Your task to perform on an android device: Show the shopping cart on target. Search for "macbook" on target, select the first entry, and add it to the cart. Image 0: 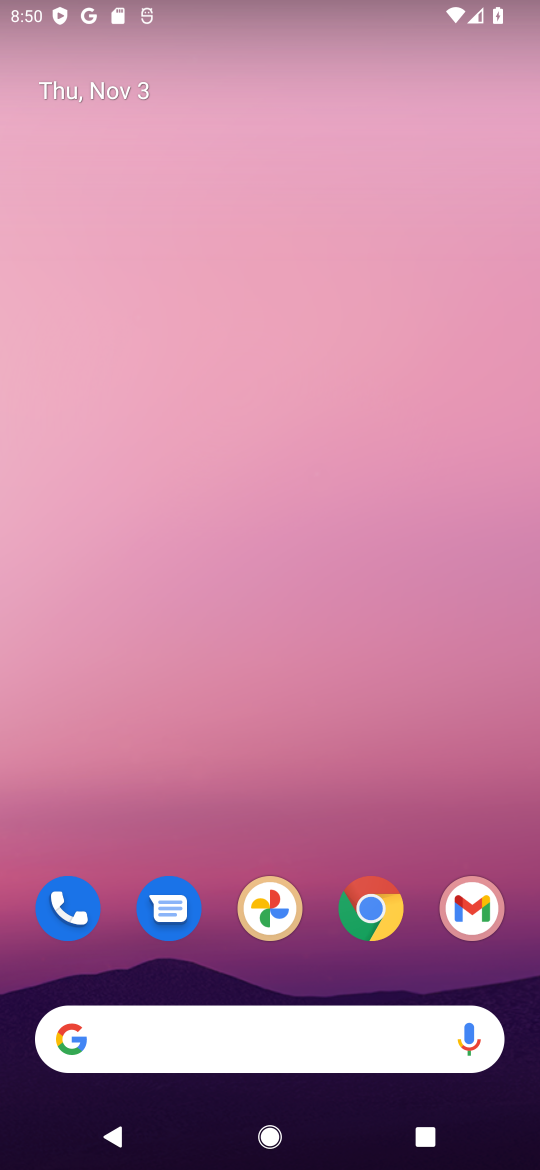
Step 0: click (363, 913)
Your task to perform on an android device: Show the shopping cart on target. Search for "macbook" on target, select the first entry, and add it to the cart. Image 1: 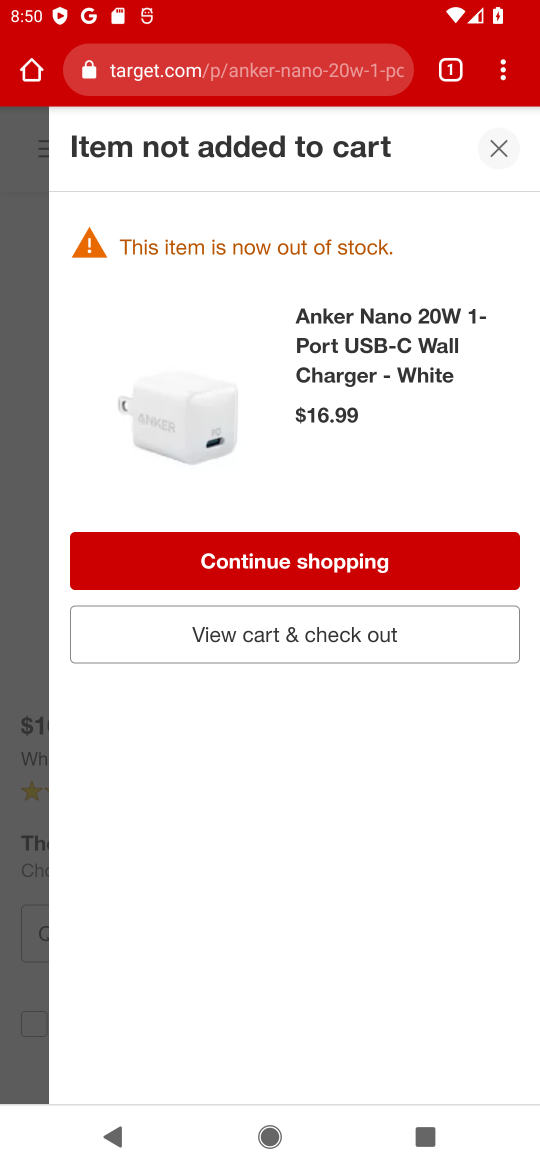
Step 1: click (495, 146)
Your task to perform on an android device: Show the shopping cart on target. Search for "macbook" on target, select the first entry, and add it to the cart. Image 2: 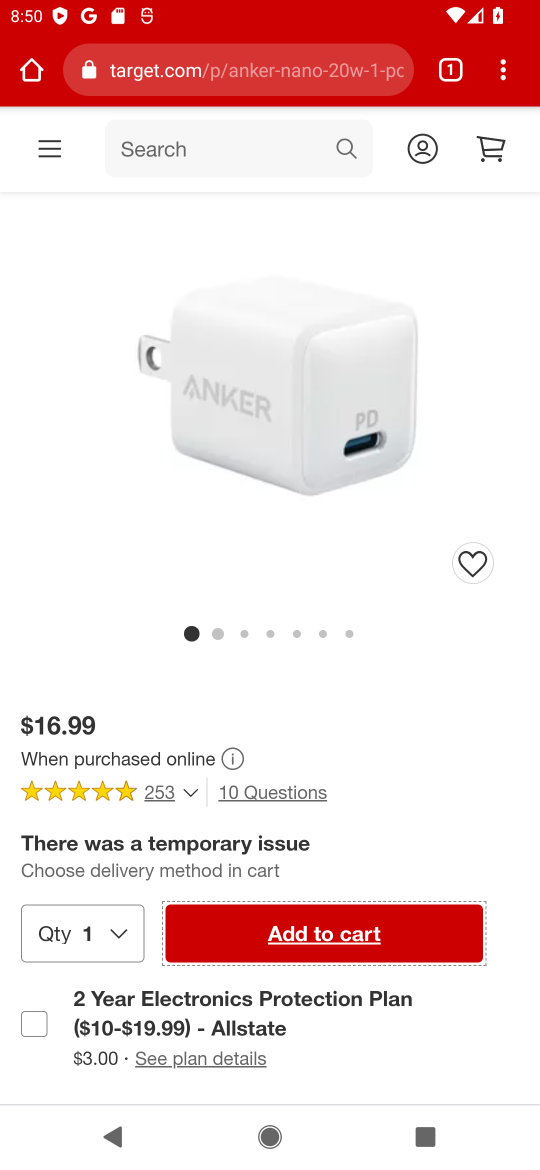
Step 2: click (495, 146)
Your task to perform on an android device: Show the shopping cart on target. Search for "macbook" on target, select the first entry, and add it to the cart. Image 3: 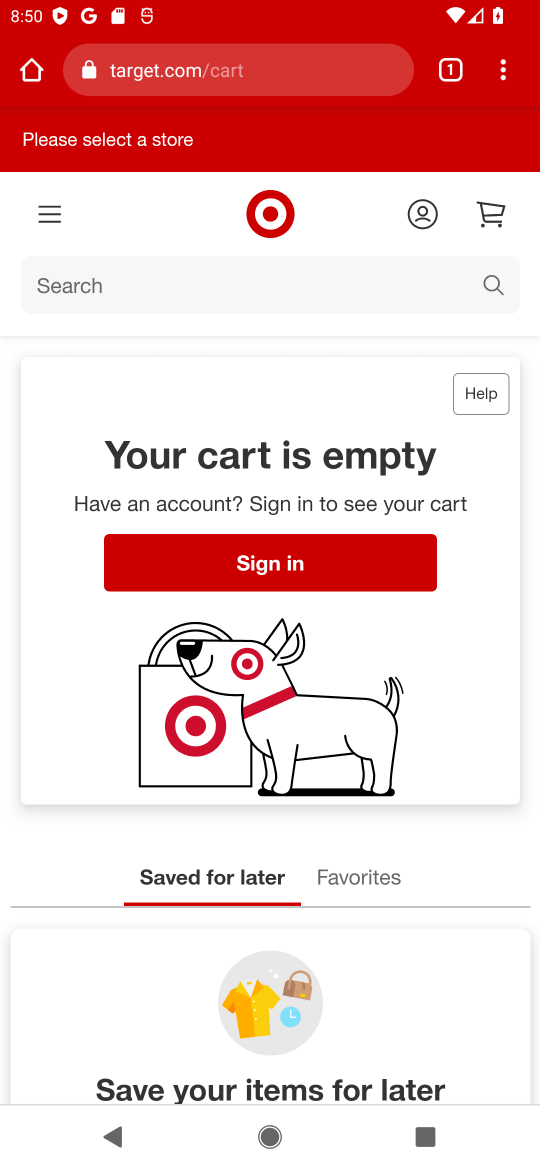
Step 3: click (491, 281)
Your task to perform on an android device: Show the shopping cart on target. Search for "macbook" on target, select the first entry, and add it to the cart. Image 4: 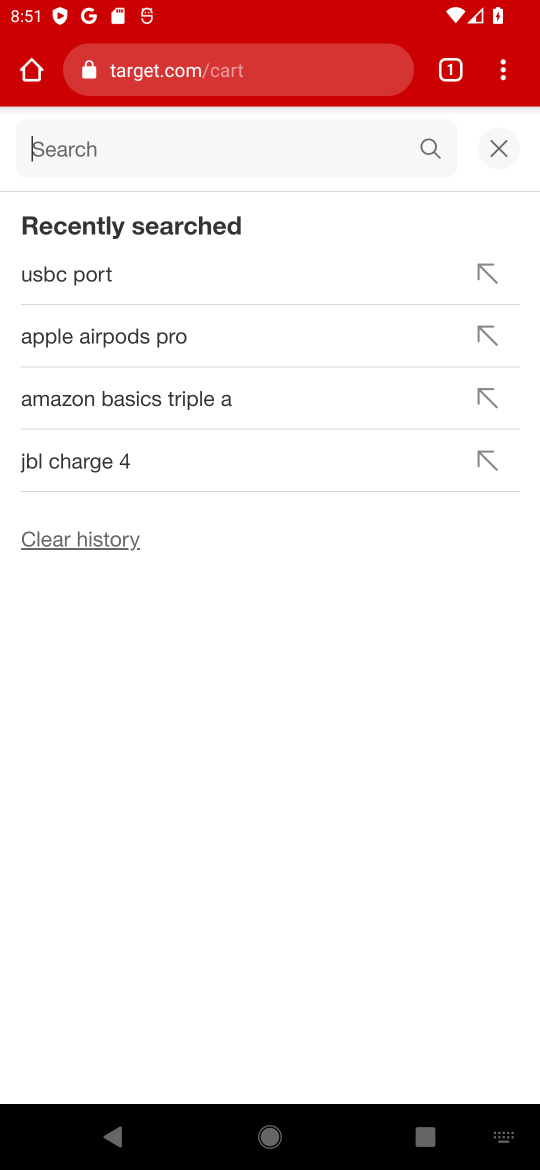
Step 4: type "macbook"
Your task to perform on an android device: Show the shopping cart on target. Search for "macbook" on target, select the first entry, and add it to the cart. Image 5: 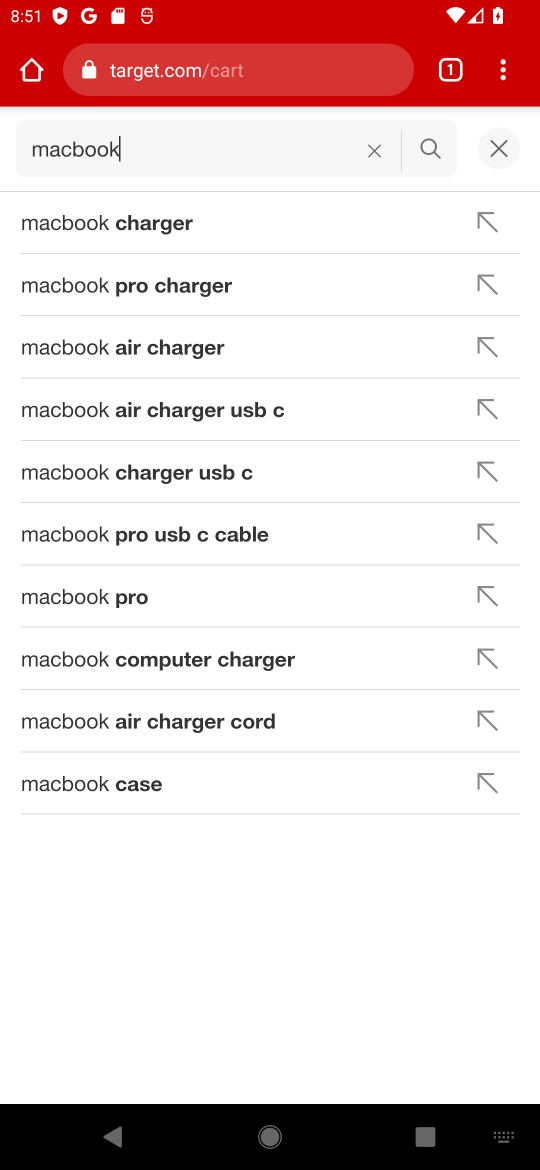
Step 5: click (117, 599)
Your task to perform on an android device: Show the shopping cart on target. Search for "macbook" on target, select the first entry, and add it to the cart. Image 6: 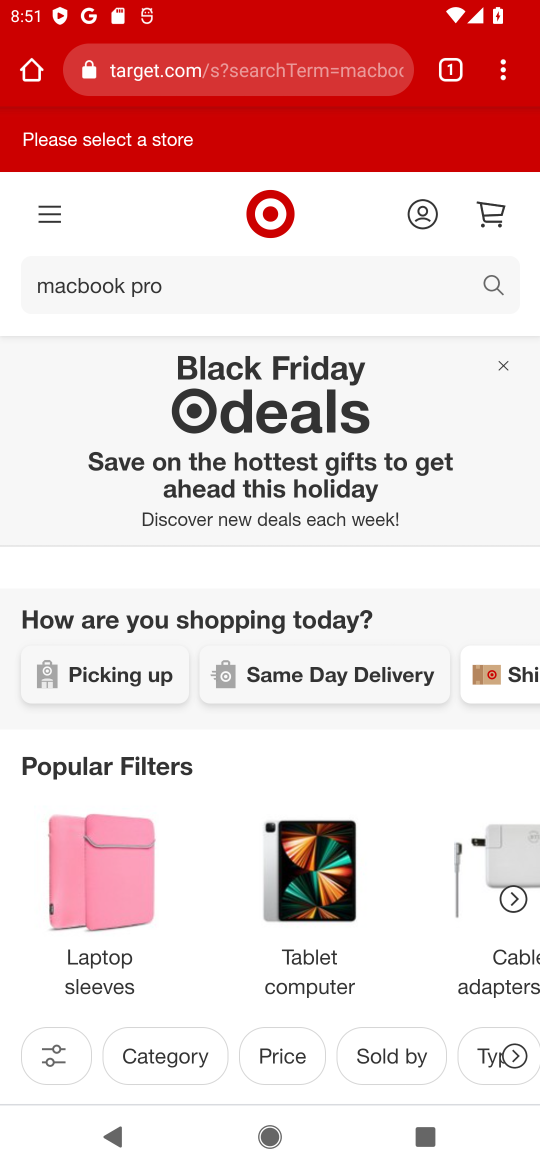
Step 6: task complete